Your task to perform on an android device: all mails in gmail Image 0: 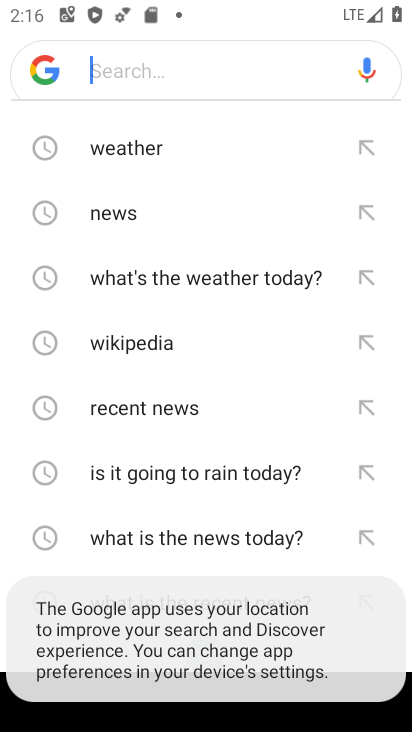
Step 0: press home button
Your task to perform on an android device: all mails in gmail Image 1: 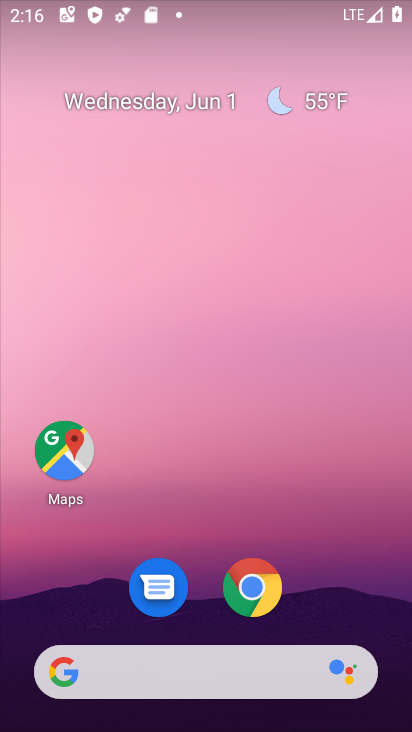
Step 1: drag from (224, 664) to (198, 118)
Your task to perform on an android device: all mails in gmail Image 2: 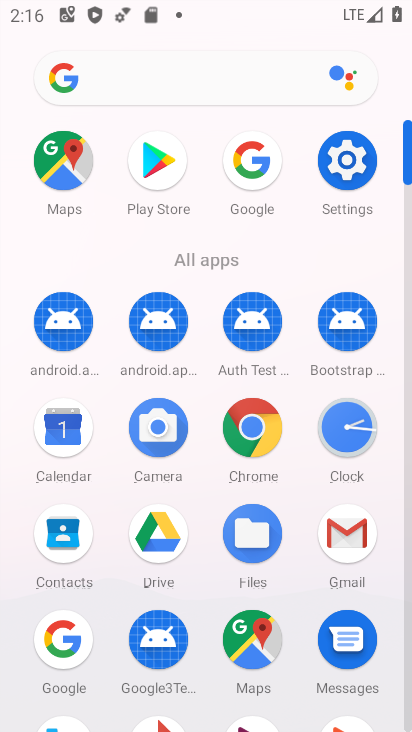
Step 2: click (343, 523)
Your task to perform on an android device: all mails in gmail Image 3: 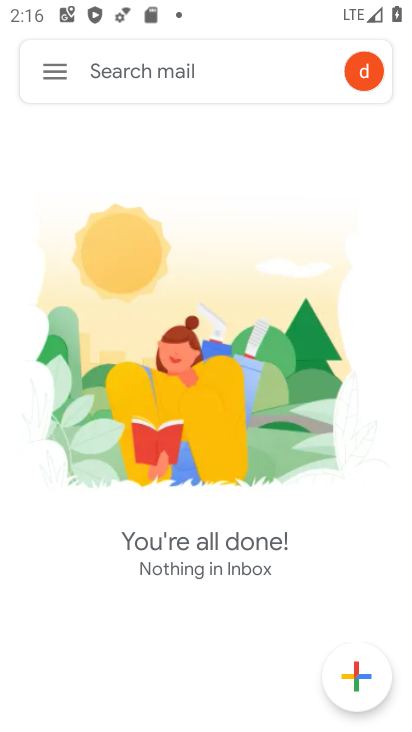
Step 3: click (64, 73)
Your task to perform on an android device: all mails in gmail Image 4: 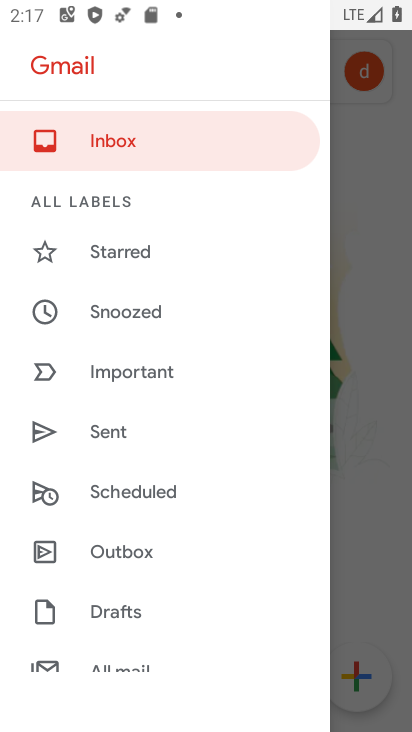
Step 4: drag from (125, 592) to (105, 235)
Your task to perform on an android device: all mails in gmail Image 5: 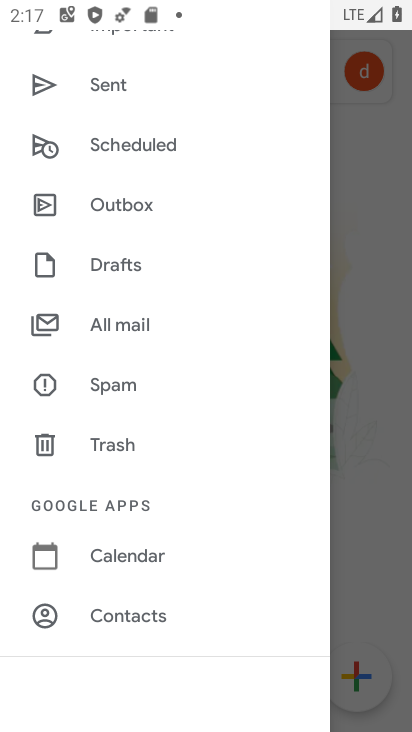
Step 5: click (131, 332)
Your task to perform on an android device: all mails in gmail Image 6: 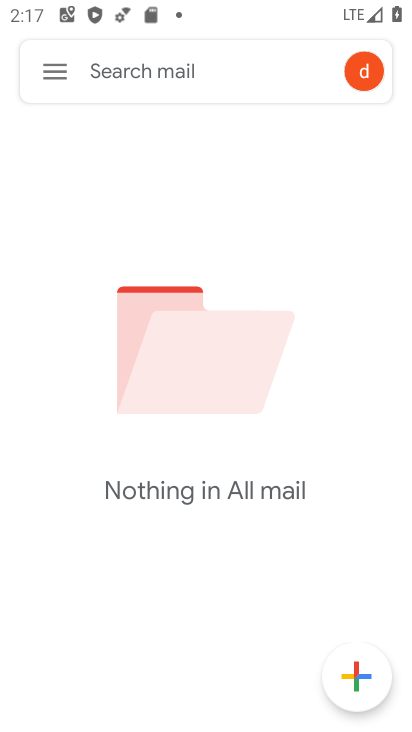
Step 6: task complete